Your task to perform on an android device: check google app version Image 0: 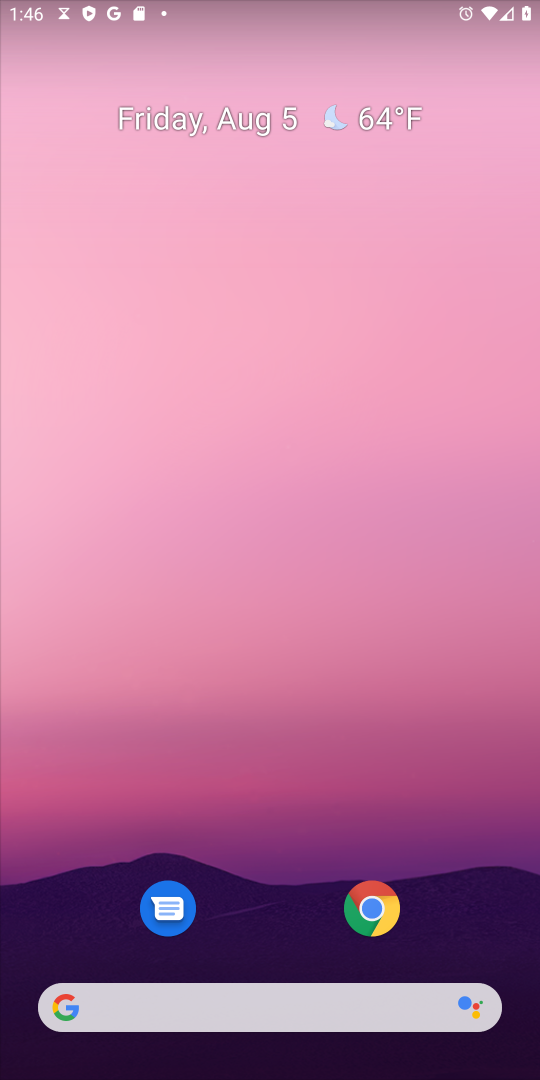
Step 0: press home button
Your task to perform on an android device: check google app version Image 1: 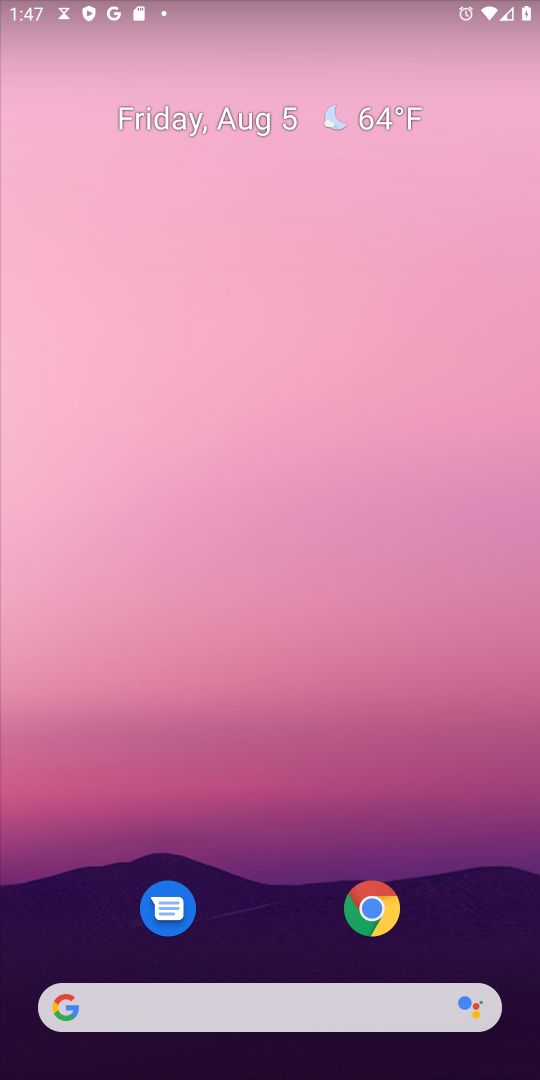
Step 1: drag from (317, 877) to (471, 306)
Your task to perform on an android device: check google app version Image 2: 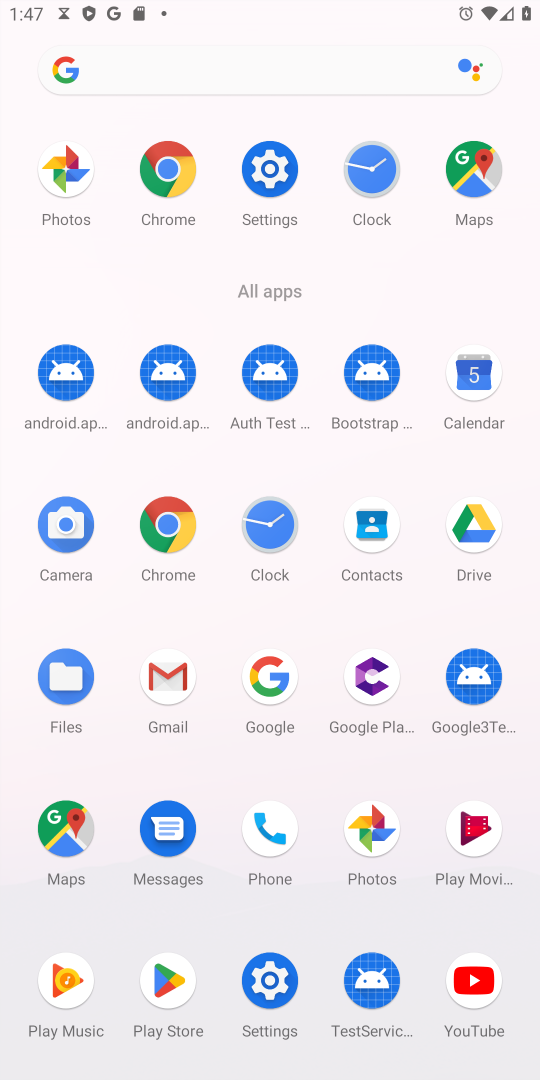
Step 2: click (281, 675)
Your task to perform on an android device: check google app version Image 3: 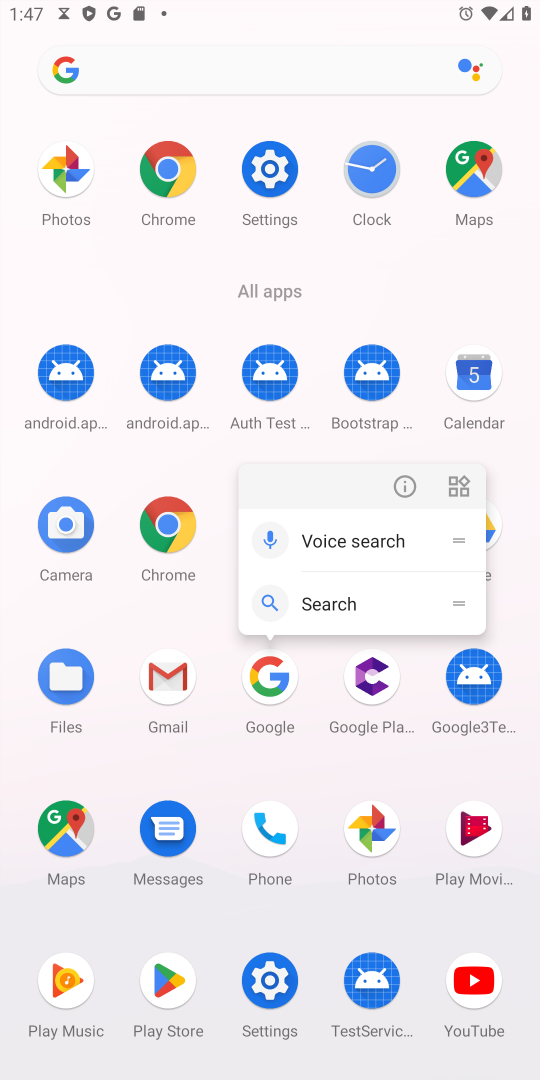
Step 3: click (412, 495)
Your task to perform on an android device: check google app version Image 4: 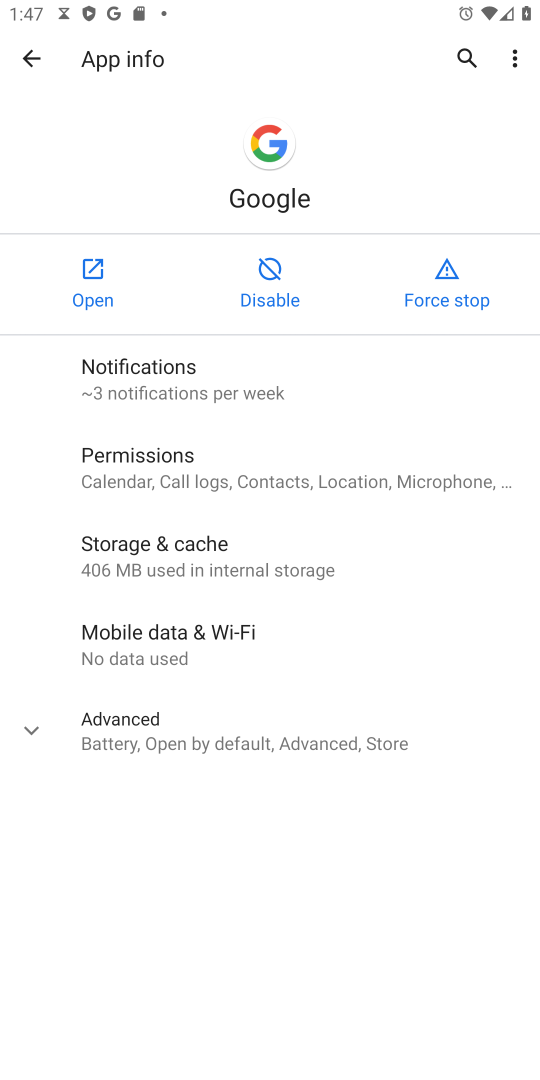
Step 4: click (116, 721)
Your task to perform on an android device: check google app version Image 5: 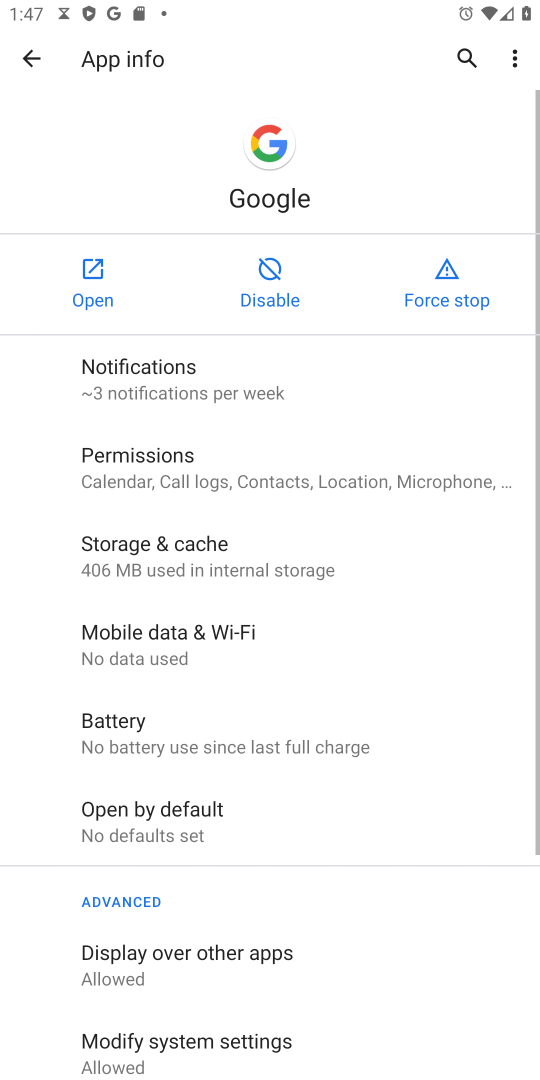
Step 5: task complete